Your task to perform on an android device: When is my next meeting? Image 0: 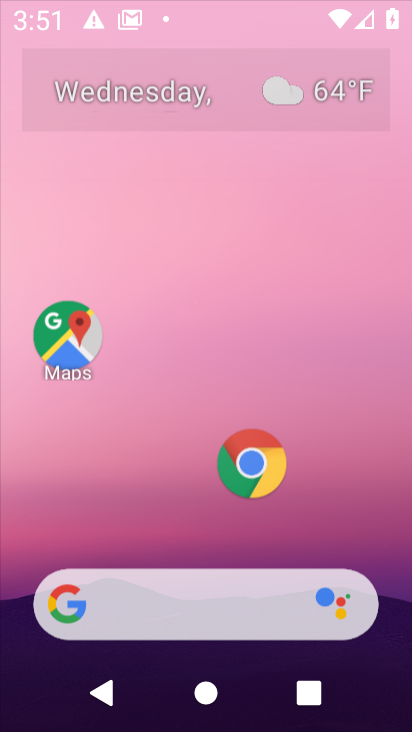
Step 0: drag from (172, 451) to (211, 221)
Your task to perform on an android device: When is my next meeting? Image 1: 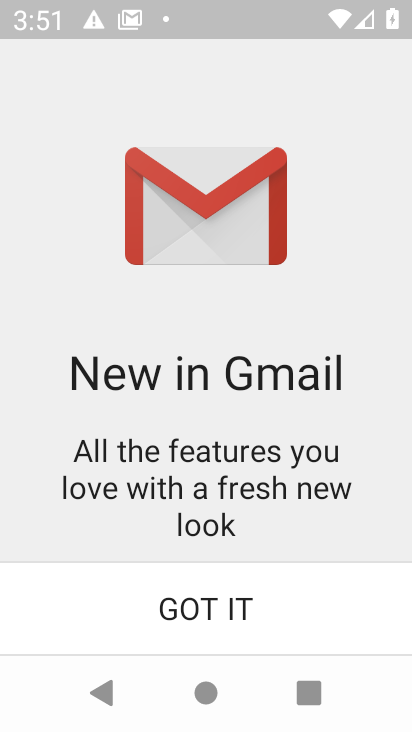
Step 1: click (209, 615)
Your task to perform on an android device: When is my next meeting? Image 2: 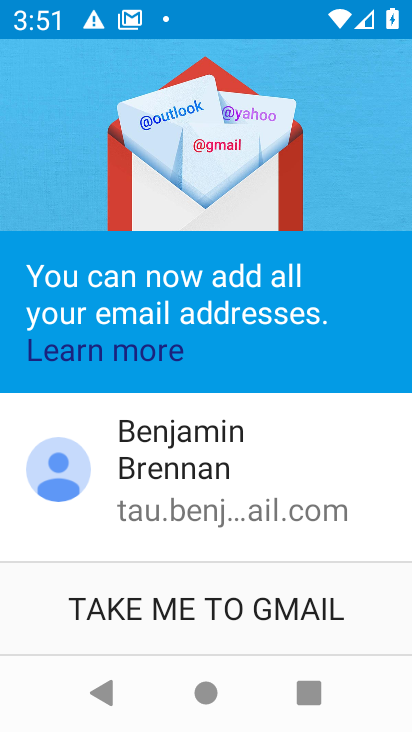
Step 2: click (209, 615)
Your task to perform on an android device: When is my next meeting? Image 3: 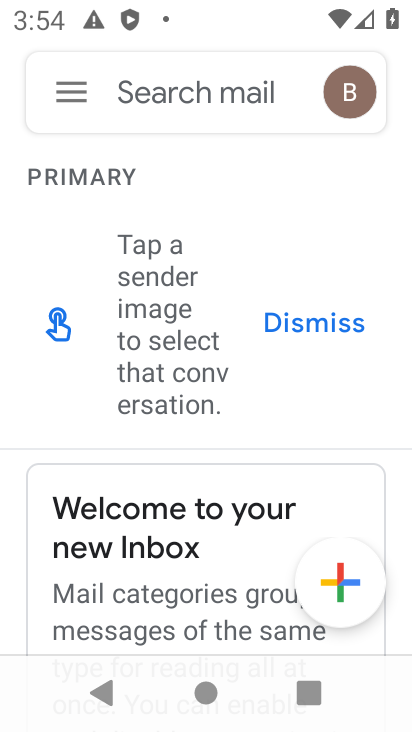
Step 3: task complete